Your task to perform on an android device: Do I have any events today? Image 0: 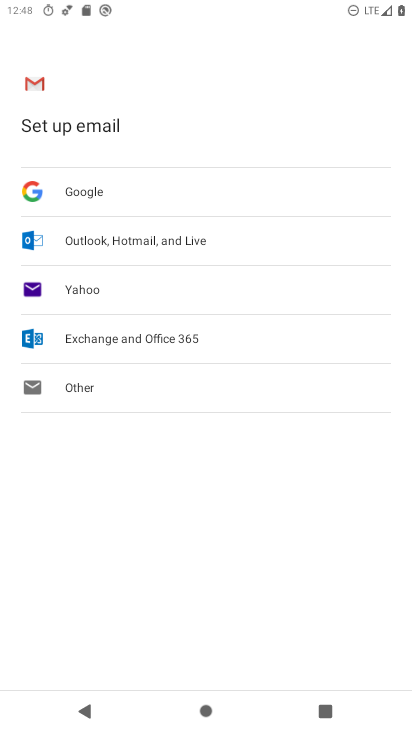
Step 0: press home button
Your task to perform on an android device: Do I have any events today? Image 1: 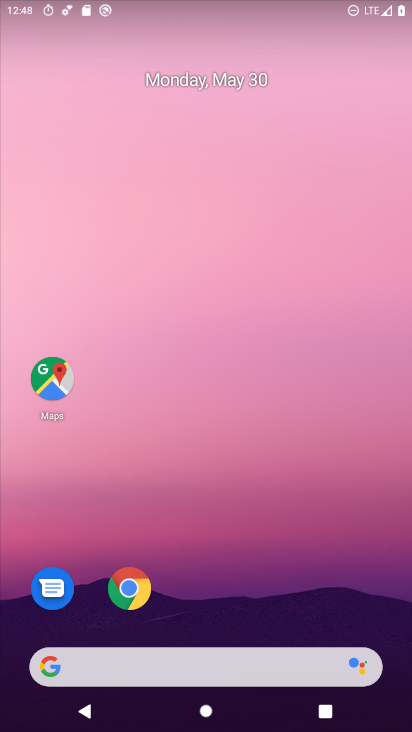
Step 1: drag from (306, 558) to (318, 175)
Your task to perform on an android device: Do I have any events today? Image 2: 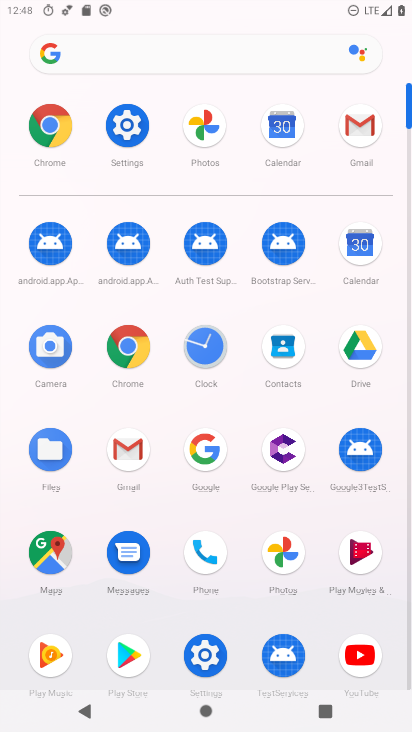
Step 2: click (372, 246)
Your task to perform on an android device: Do I have any events today? Image 3: 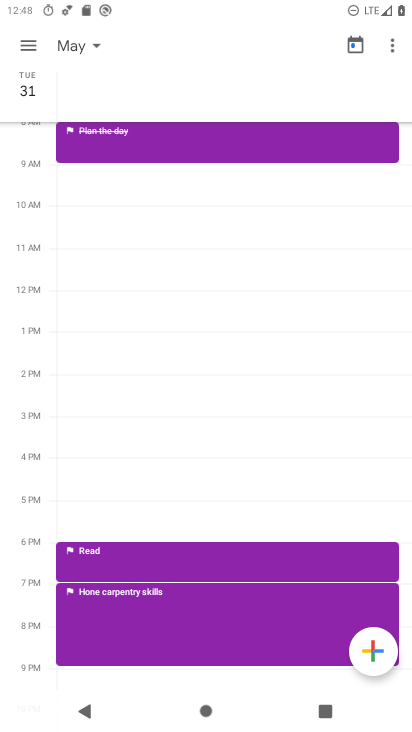
Step 3: task complete